Your task to perform on an android device: add a label to a message in the gmail app Image 0: 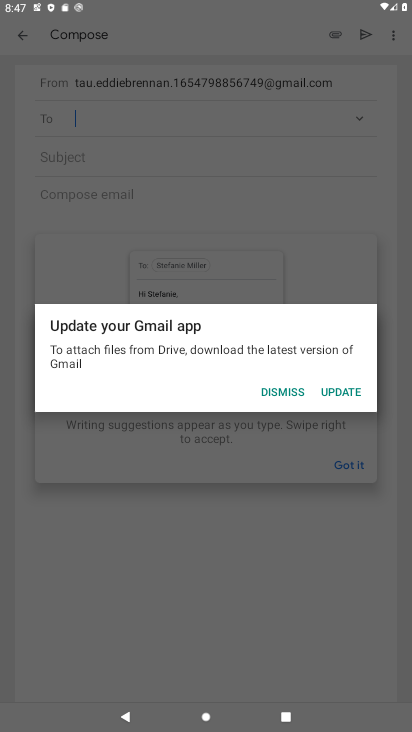
Step 0: press home button
Your task to perform on an android device: add a label to a message in the gmail app Image 1: 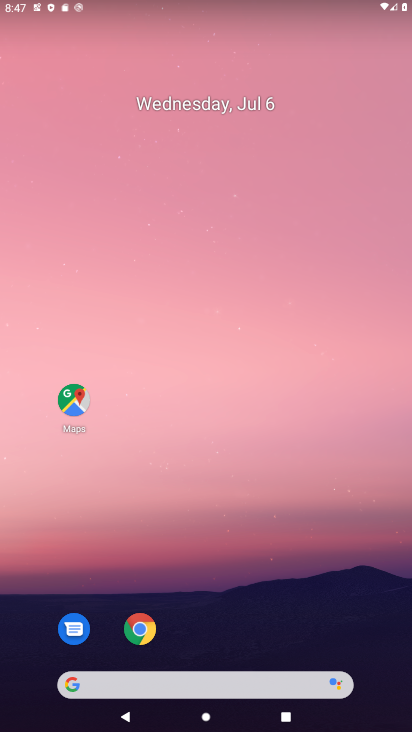
Step 1: drag from (221, 598) to (178, 136)
Your task to perform on an android device: add a label to a message in the gmail app Image 2: 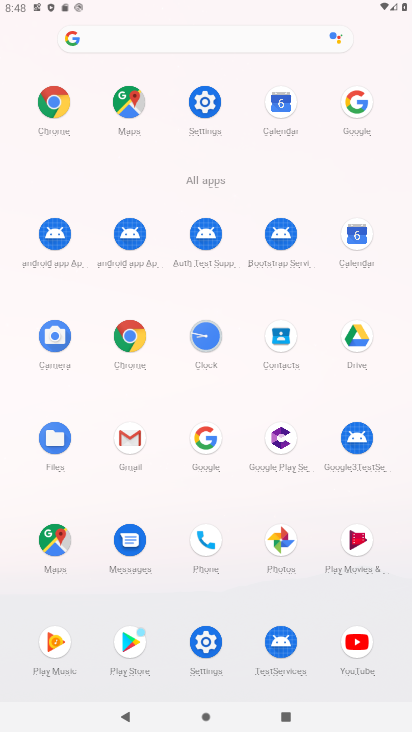
Step 2: click (131, 439)
Your task to perform on an android device: add a label to a message in the gmail app Image 3: 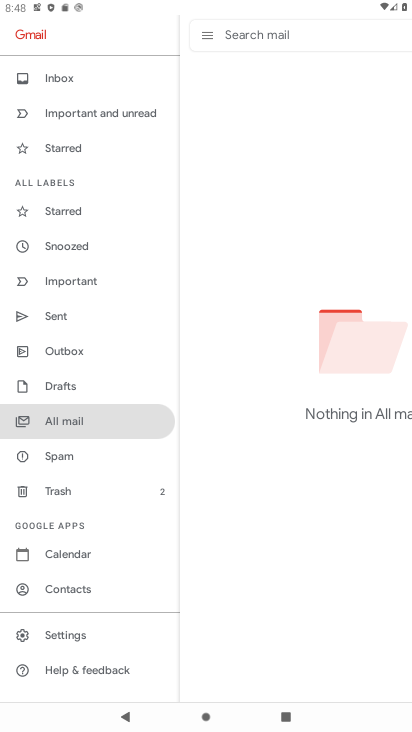
Step 3: click (106, 80)
Your task to perform on an android device: add a label to a message in the gmail app Image 4: 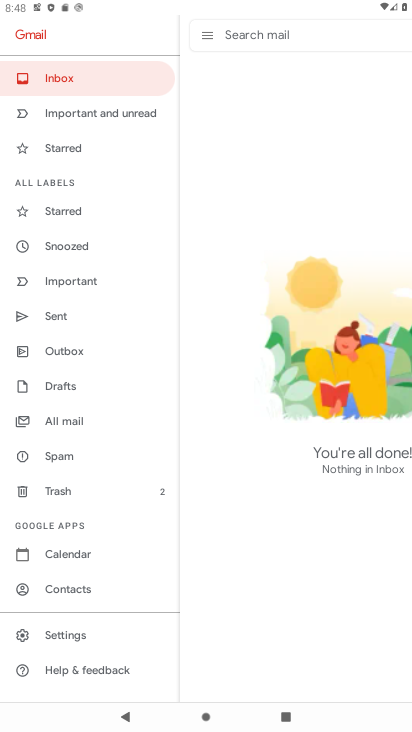
Step 4: click (205, 35)
Your task to perform on an android device: add a label to a message in the gmail app Image 5: 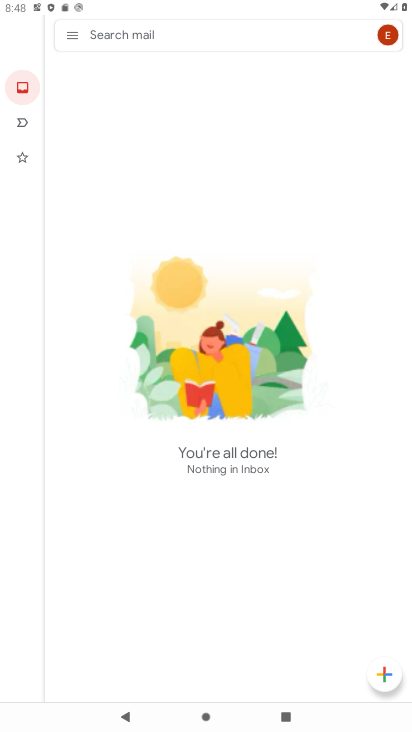
Step 5: click (24, 84)
Your task to perform on an android device: add a label to a message in the gmail app Image 6: 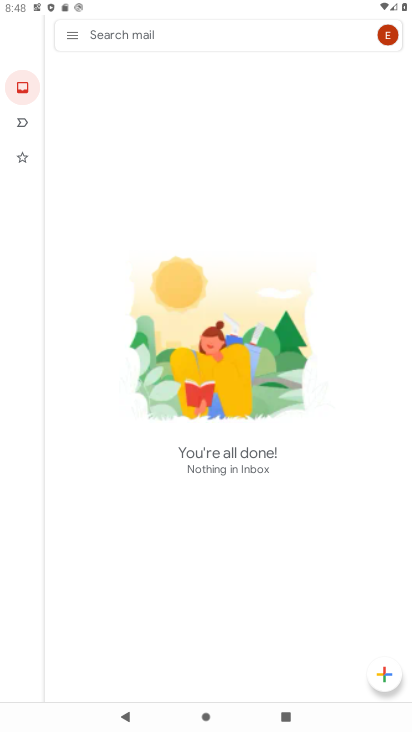
Step 6: click (22, 87)
Your task to perform on an android device: add a label to a message in the gmail app Image 7: 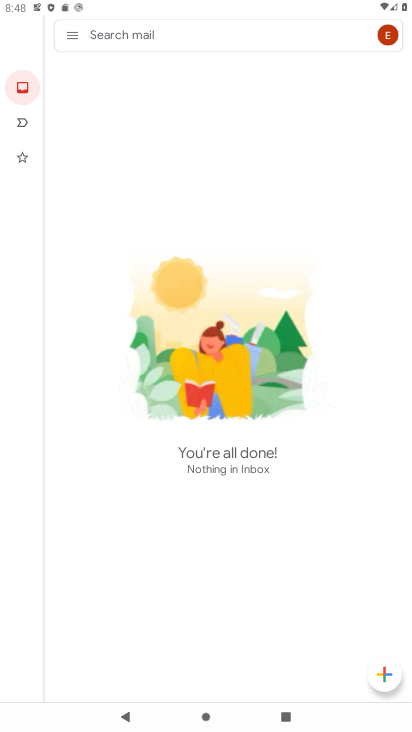
Step 7: click (22, 87)
Your task to perform on an android device: add a label to a message in the gmail app Image 8: 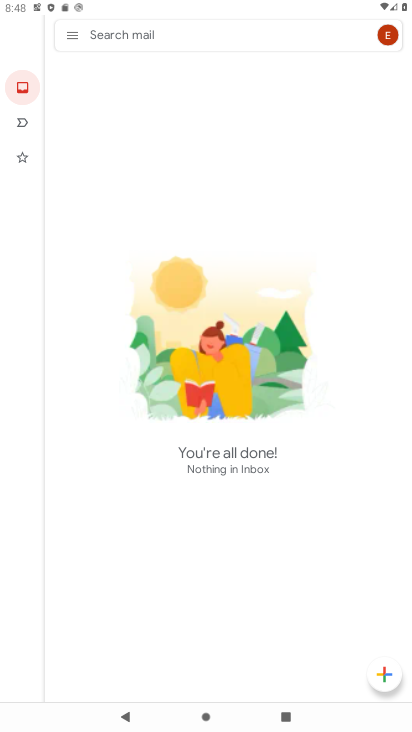
Step 8: click (72, 35)
Your task to perform on an android device: add a label to a message in the gmail app Image 9: 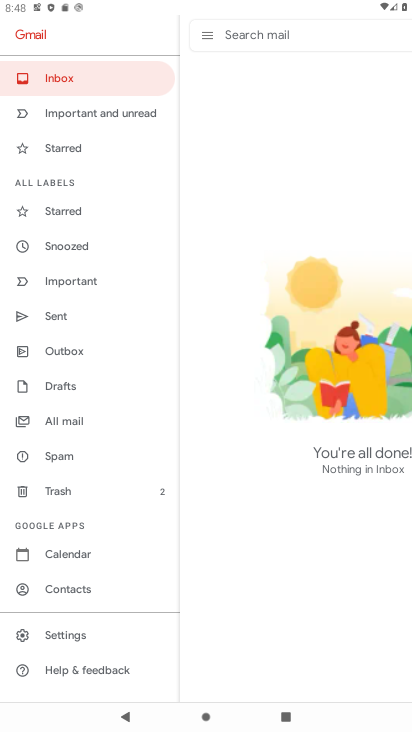
Step 9: click (72, 205)
Your task to perform on an android device: add a label to a message in the gmail app Image 10: 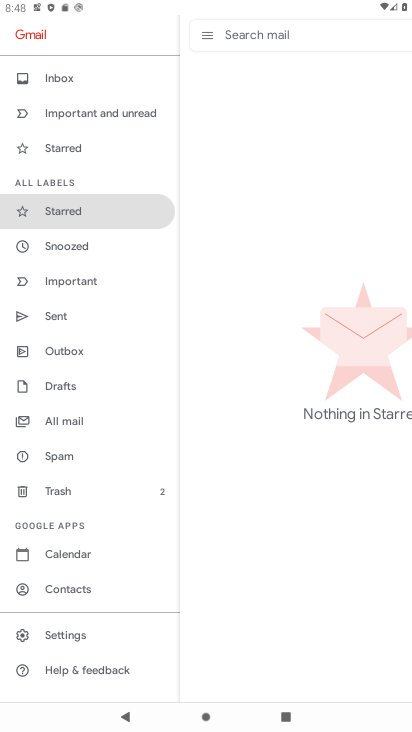
Step 10: click (61, 256)
Your task to perform on an android device: add a label to a message in the gmail app Image 11: 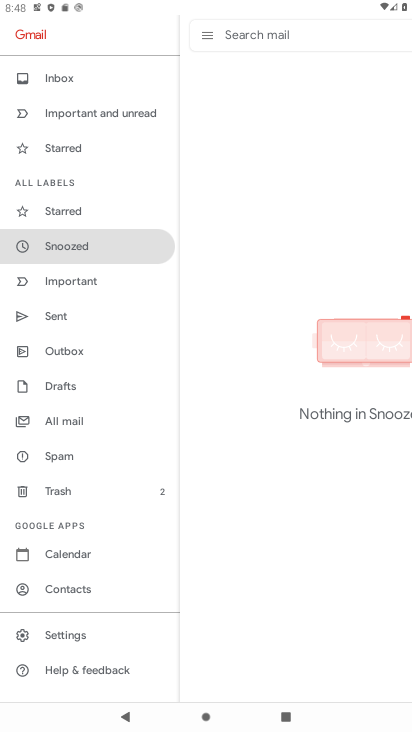
Step 11: click (70, 320)
Your task to perform on an android device: add a label to a message in the gmail app Image 12: 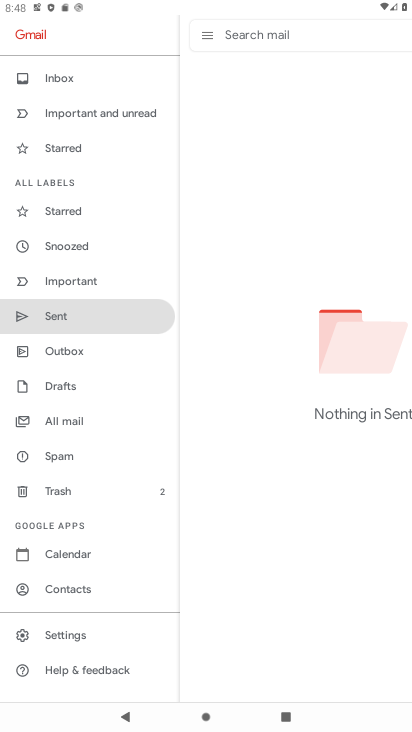
Step 12: click (68, 351)
Your task to perform on an android device: add a label to a message in the gmail app Image 13: 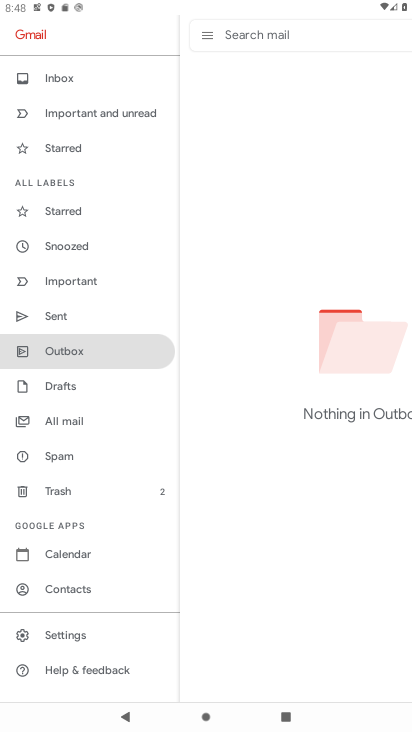
Step 13: click (69, 379)
Your task to perform on an android device: add a label to a message in the gmail app Image 14: 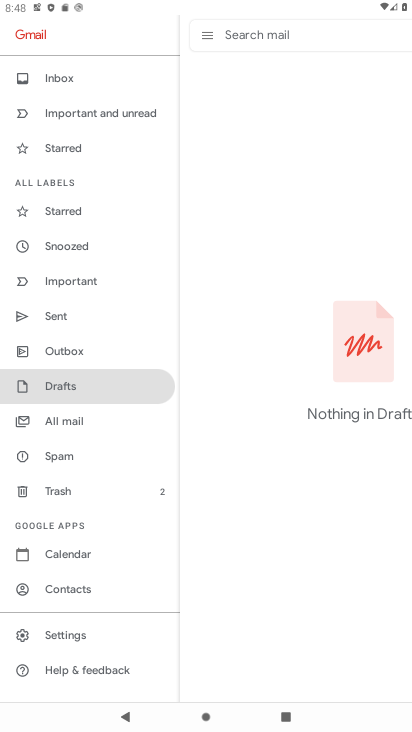
Step 14: click (63, 408)
Your task to perform on an android device: add a label to a message in the gmail app Image 15: 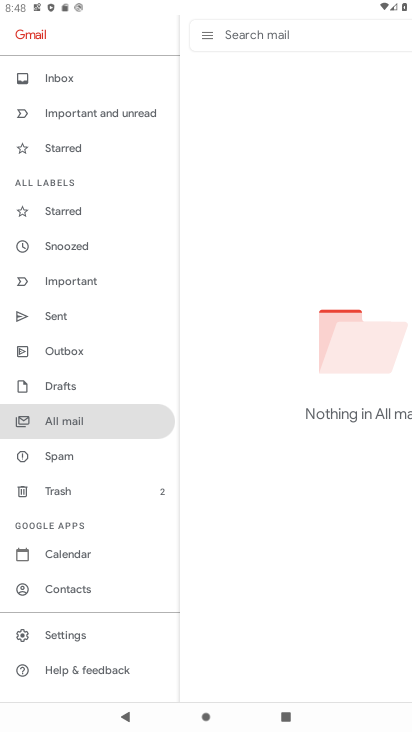
Step 15: task complete